Your task to perform on an android device: Search for pizza restaurants on Maps Image 0: 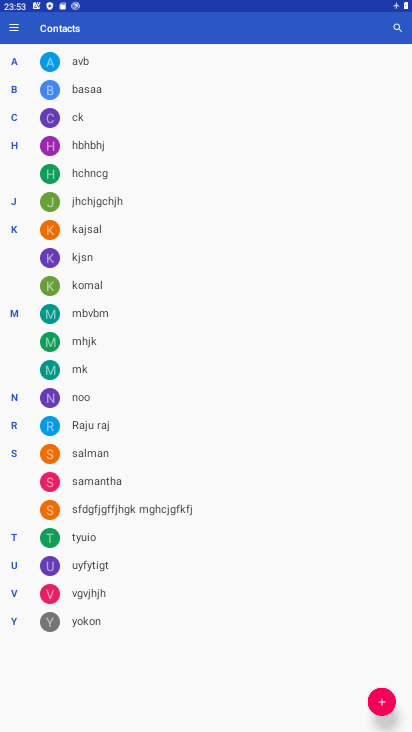
Step 0: press home button
Your task to perform on an android device: Search for pizza restaurants on Maps Image 1: 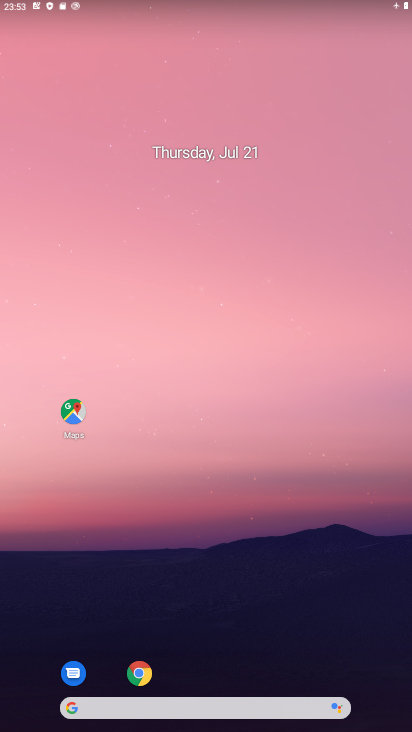
Step 1: click (94, 419)
Your task to perform on an android device: Search for pizza restaurants on Maps Image 2: 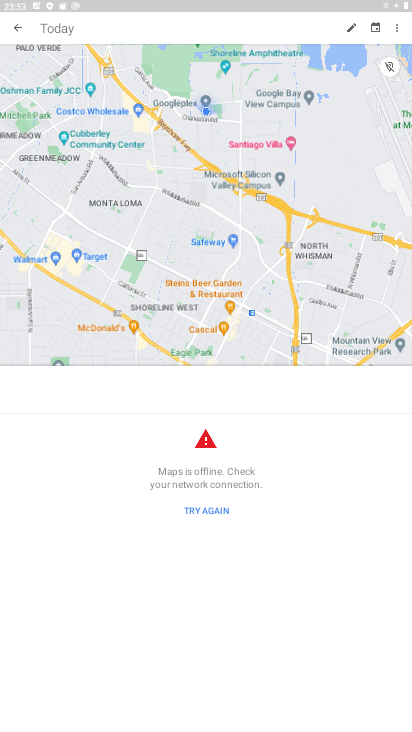
Step 2: click (21, 30)
Your task to perform on an android device: Search for pizza restaurants on Maps Image 3: 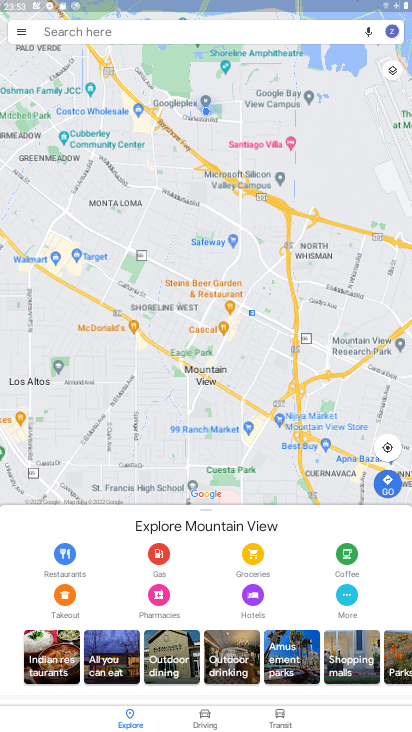
Step 3: click (157, 22)
Your task to perform on an android device: Search for pizza restaurants on Maps Image 4: 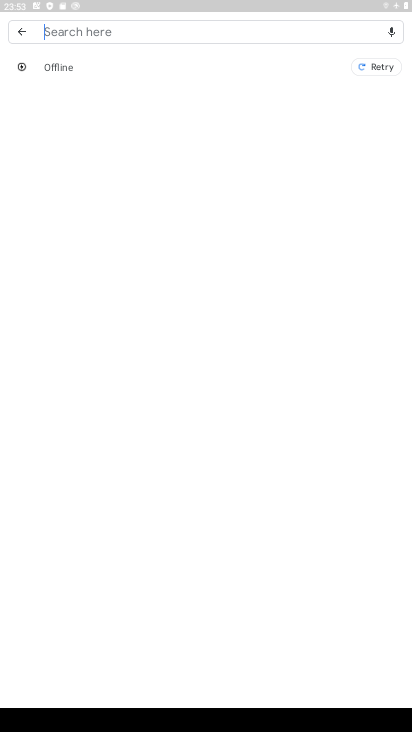
Step 4: type "pizza restaurants"
Your task to perform on an android device: Search for pizza restaurants on Maps Image 5: 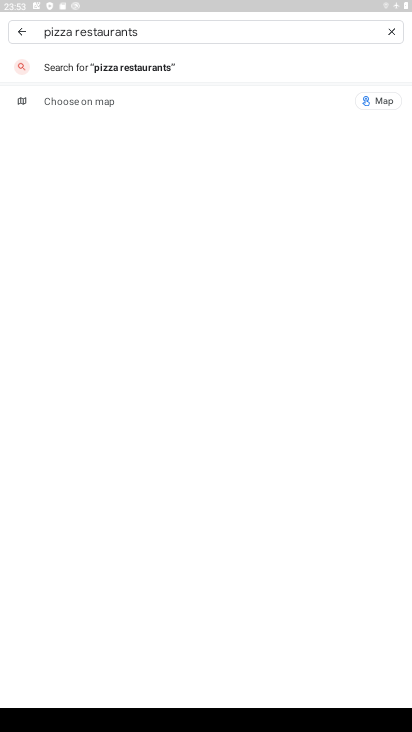
Step 5: click (138, 72)
Your task to perform on an android device: Search for pizza restaurants on Maps Image 6: 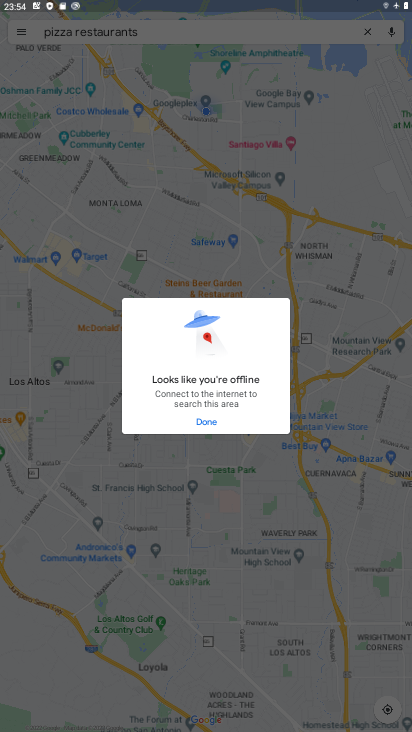
Step 6: task complete